Your task to perform on an android device: open the mobile data screen to see how much data has been used Image 0: 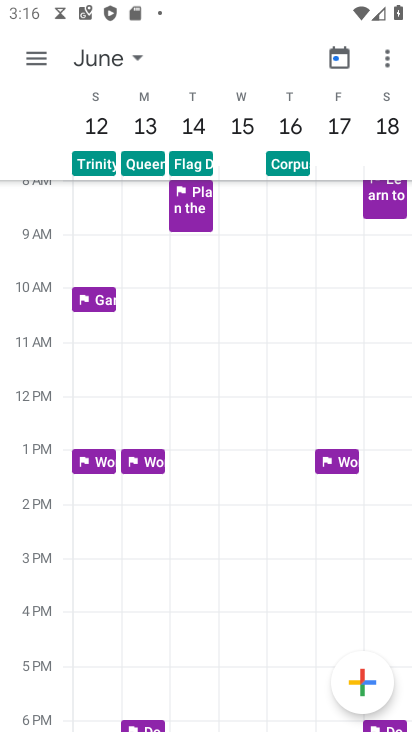
Step 0: press home button
Your task to perform on an android device: open the mobile data screen to see how much data has been used Image 1: 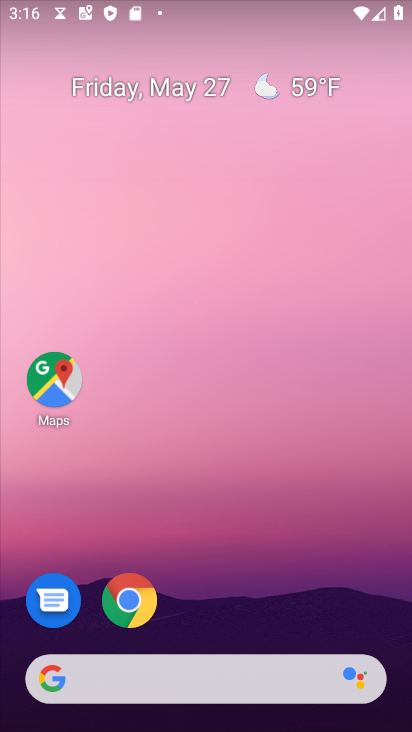
Step 1: drag from (295, 583) to (244, 102)
Your task to perform on an android device: open the mobile data screen to see how much data has been used Image 2: 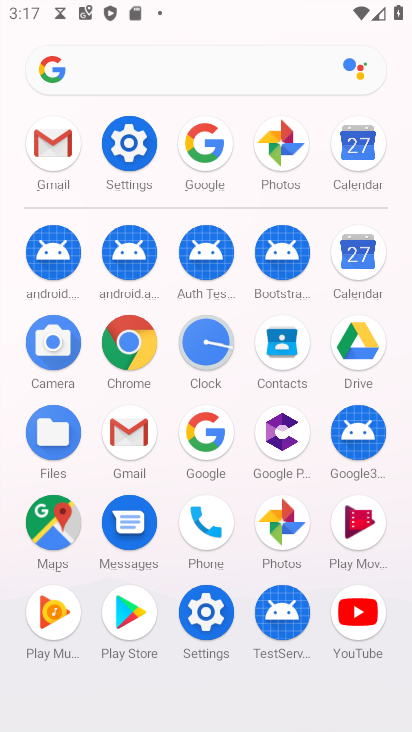
Step 2: click (129, 140)
Your task to perform on an android device: open the mobile data screen to see how much data has been used Image 3: 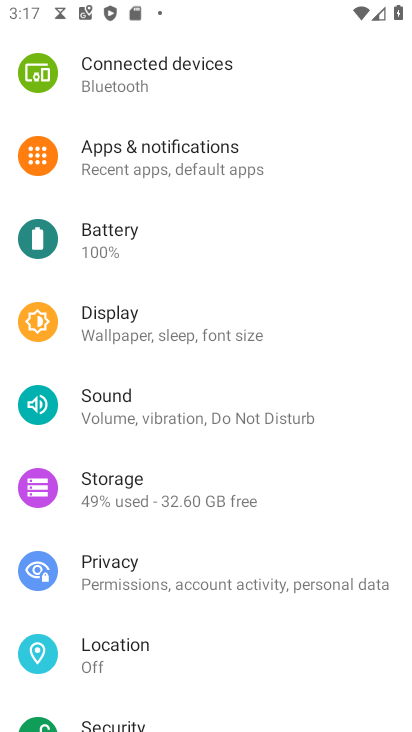
Step 3: drag from (182, 122) to (204, 250)
Your task to perform on an android device: open the mobile data screen to see how much data has been used Image 4: 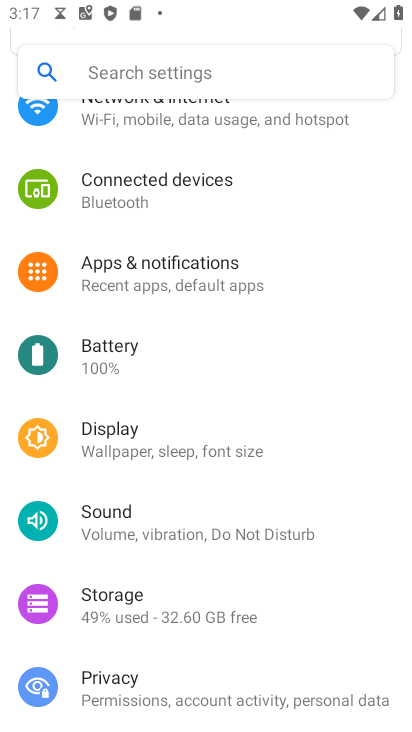
Step 4: drag from (150, 149) to (195, 302)
Your task to perform on an android device: open the mobile data screen to see how much data has been used Image 5: 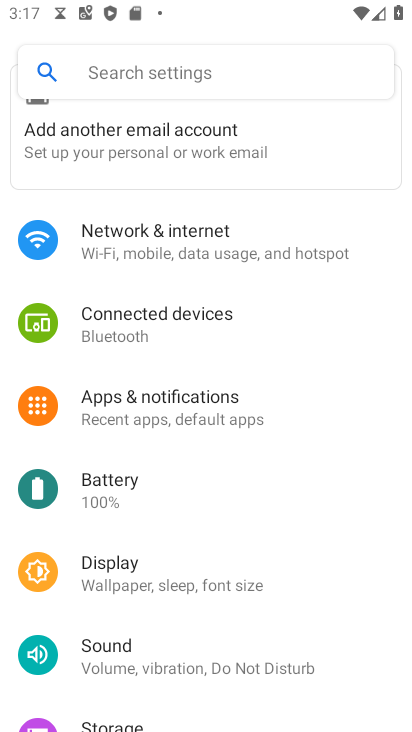
Step 5: click (148, 250)
Your task to perform on an android device: open the mobile data screen to see how much data has been used Image 6: 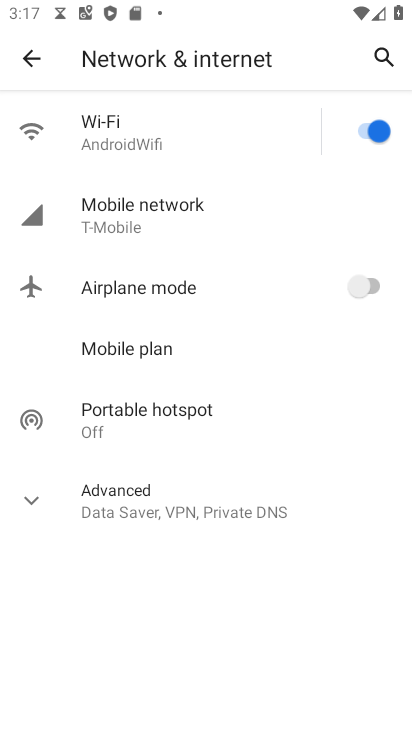
Step 6: click (143, 201)
Your task to perform on an android device: open the mobile data screen to see how much data has been used Image 7: 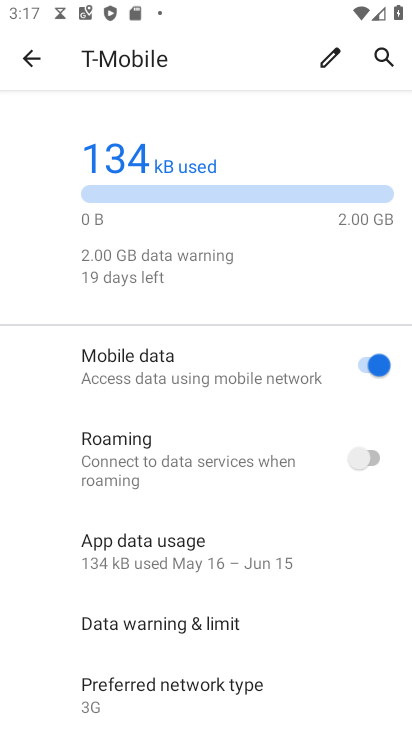
Step 7: task complete